Your task to perform on an android device: turn vacation reply on in the gmail app Image 0: 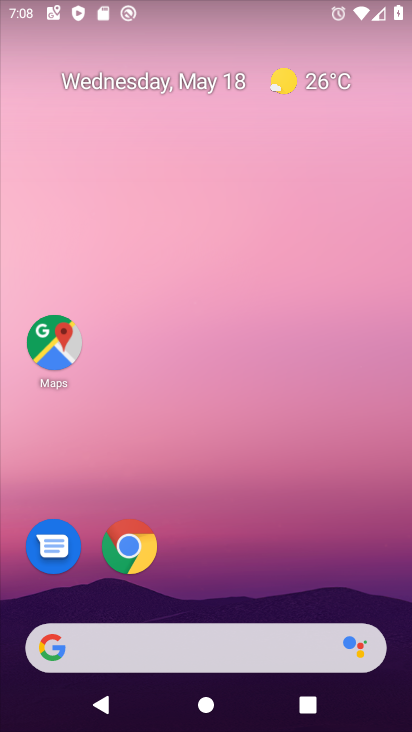
Step 0: drag from (387, 626) to (309, 57)
Your task to perform on an android device: turn vacation reply on in the gmail app Image 1: 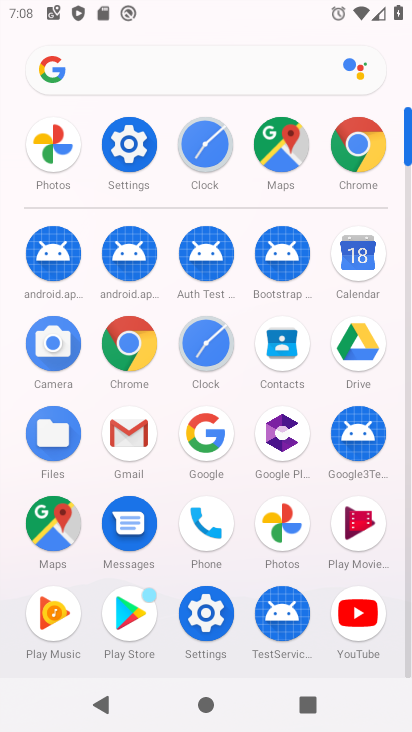
Step 1: click (147, 444)
Your task to perform on an android device: turn vacation reply on in the gmail app Image 2: 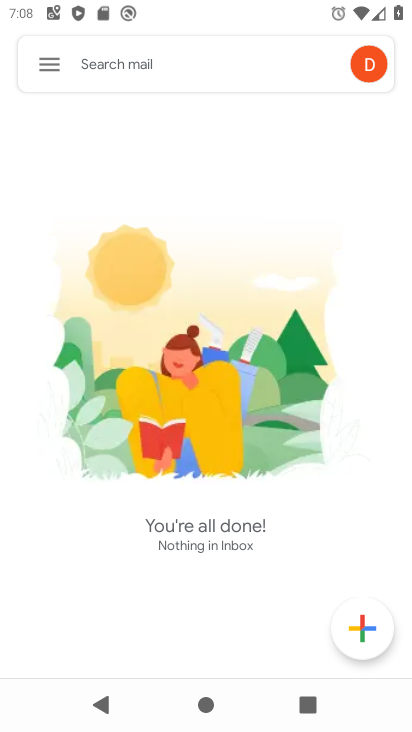
Step 2: click (46, 64)
Your task to perform on an android device: turn vacation reply on in the gmail app Image 3: 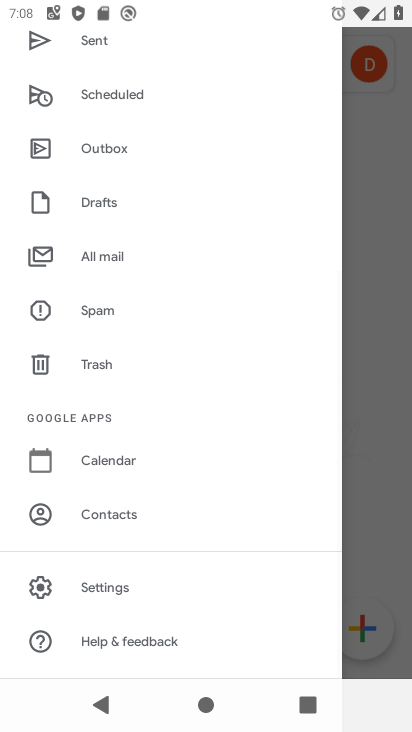
Step 3: click (70, 592)
Your task to perform on an android device: turn vacation reply on in the gmail app Image 4: 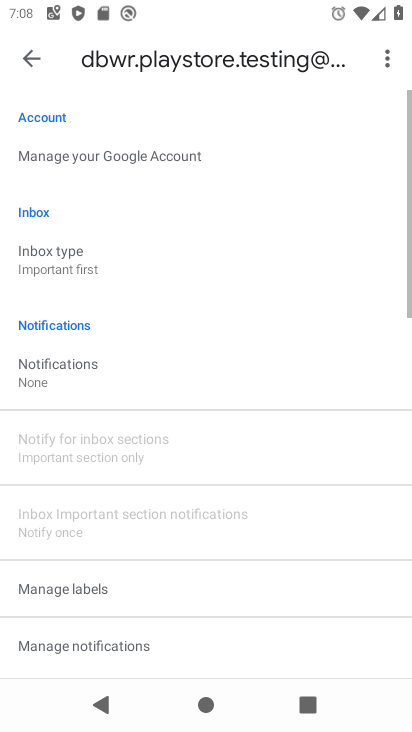
Step 4: drag from (70, 592) to (160, 57)
Your task to perform on an android device: turn vacation reply on in the gmail app Image 5: 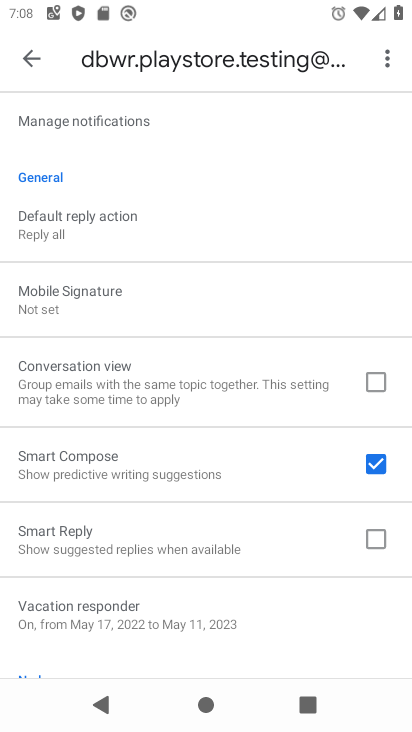
Step 5: click (127, 633)
Your task to perform on an android device: turn vacation reply on in the gmail app Image 6: 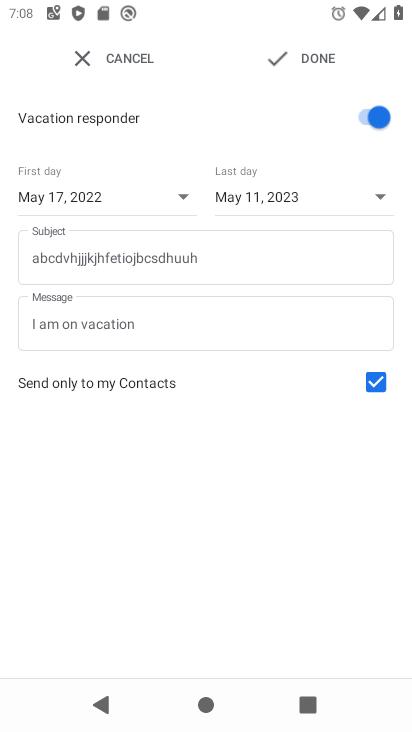
Step 6: task complete